Your task to perform on an android device: clear history in the chrome app Image 0: 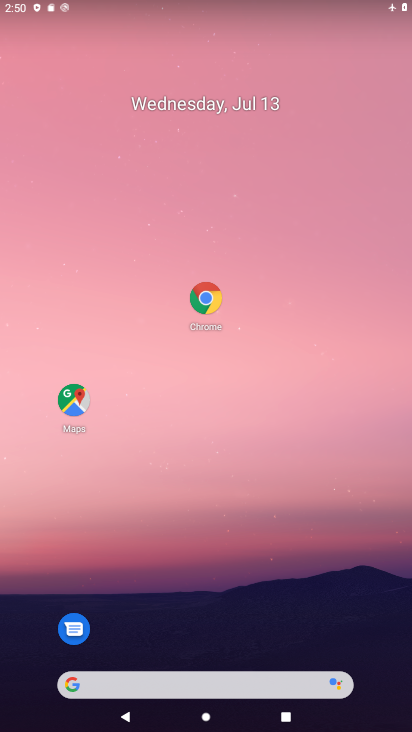
Step 0: drag from (252, 667) to (252, 391)
Your task to perform on an android device: clear history in the chrome app Image 1: 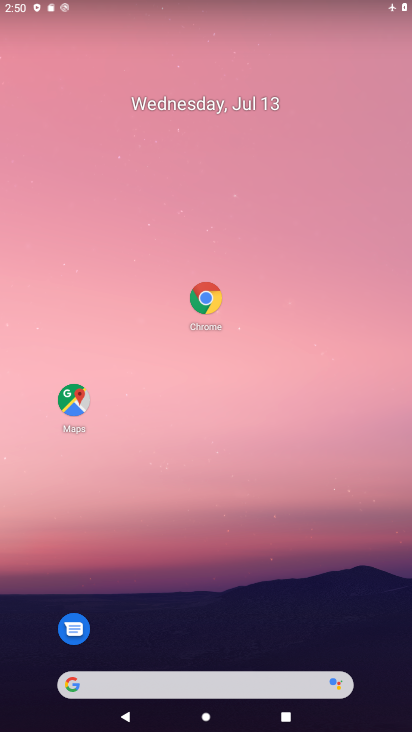
Step 1: drag from (160, 601) to (239, 223)
Your task to perform on an android device: clear history in the chrome app Image 2: 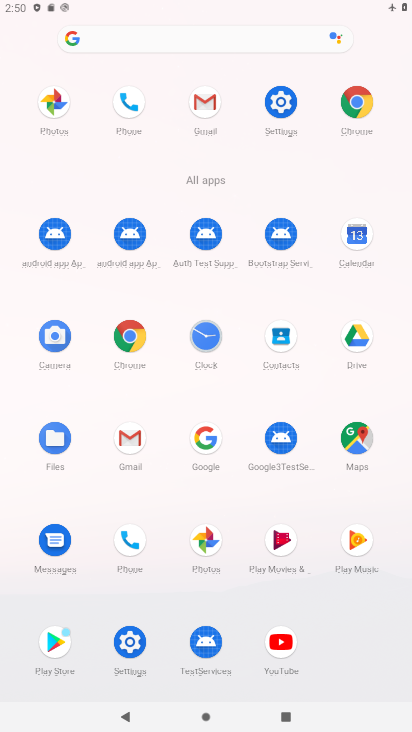
Step 2: click (120, 324)
Your task to perform on an android device: clear history in the chrome app Image 3: 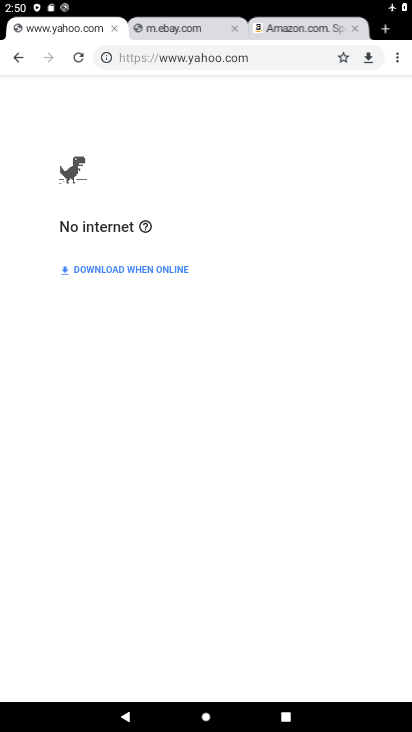
Step 3: click (392, 66)
Your task to perform on an android device: clear history in the chrome app Image 4: 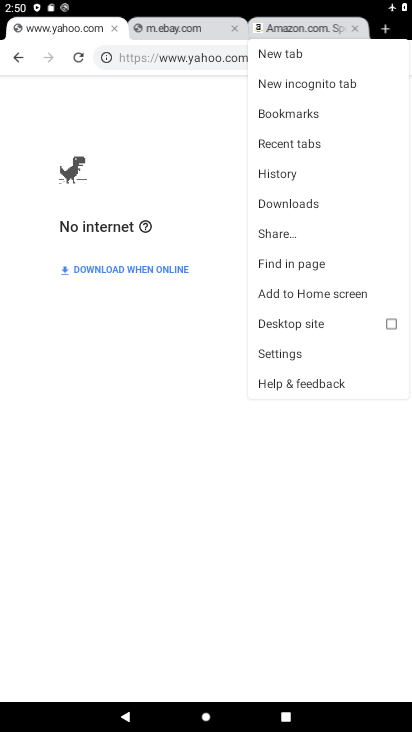
Step 4: click (275, 174)
Your task to perform on an android device: clear history in the chrome app Image 5: 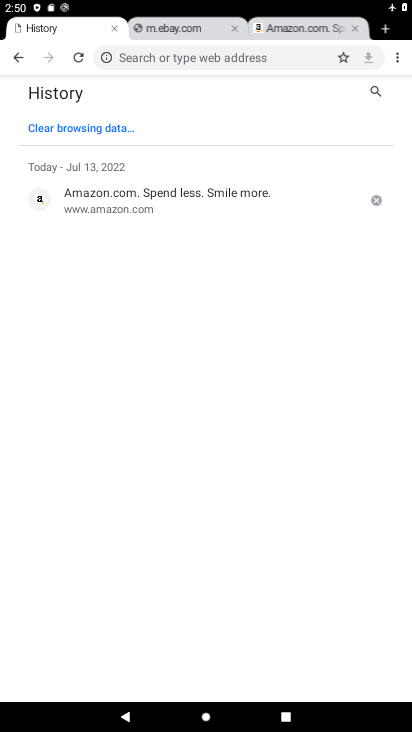
Step 5: click (83, 120)
Your task to perform on an android device: clear history in the chrome app Image 6: 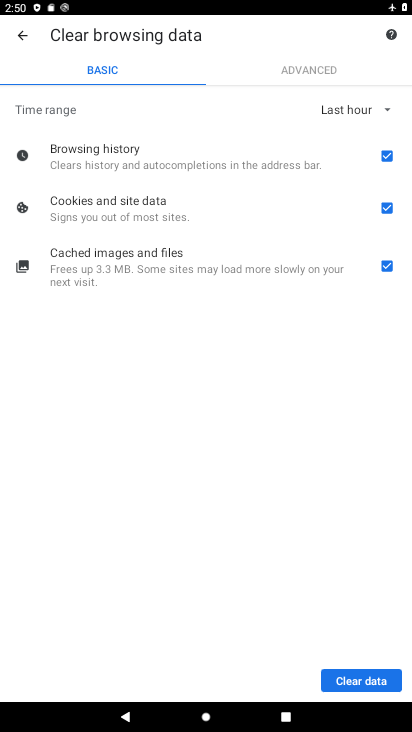
Step 6: click (341, 679)
Your task to perform on an android device: clear history in the chrome app Image 7: 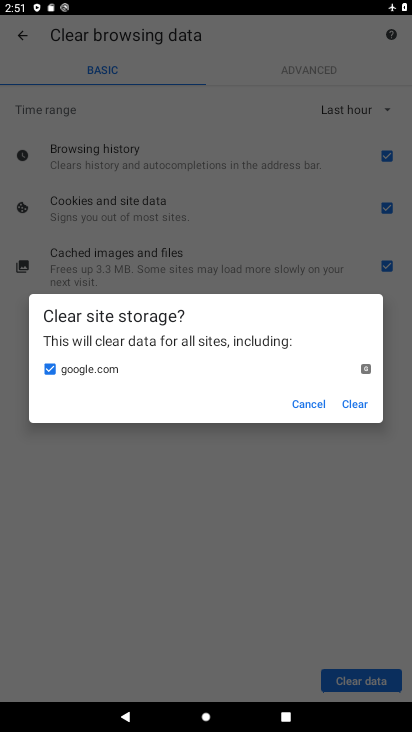
Step 7: click (352, 410)
Your task to perform on an android device: clear history in the chrome app Image 8: 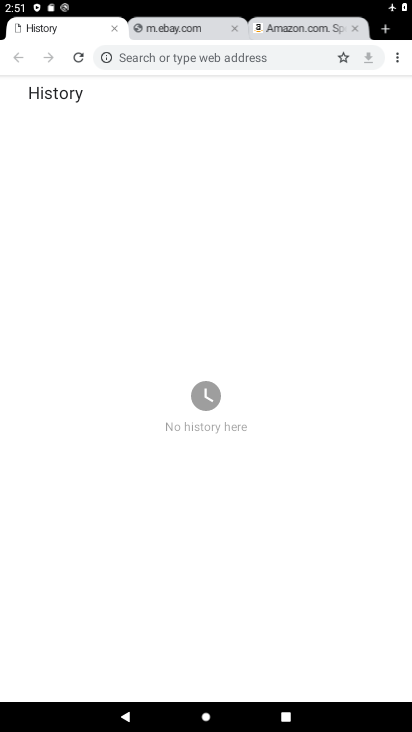
Step 8: task complete